Your task to perform on an android device: Open battery settings Image 0: 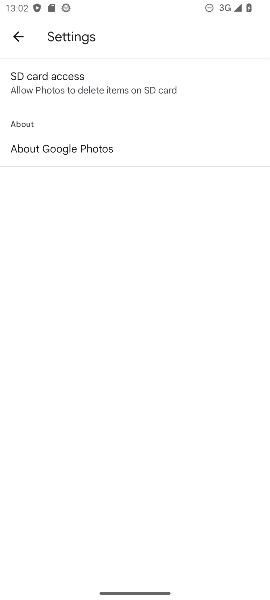
Step 0: press home button
Your task to perform on an android device: Open battery settings Image 1: 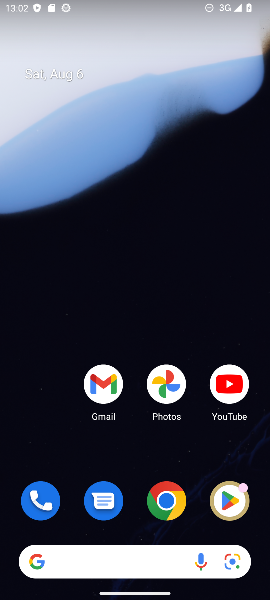
Step 1: drag from (132, 422) to (117, 96)
Your task to perform on an android device: Open battery settings Image 2: 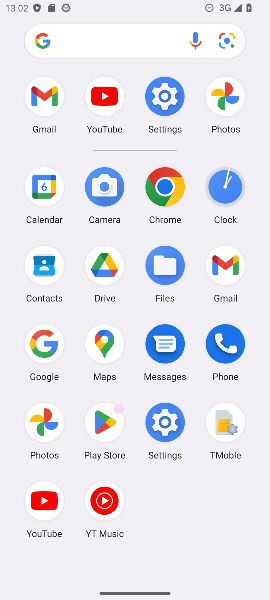
Step 2: click (156, 97)
Your task to perform on an android device: Open battery settings Image 3: 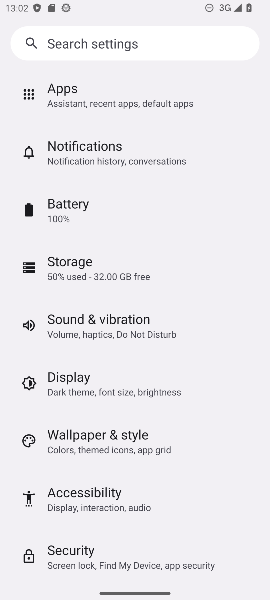
Step 3: click (88, 205)
Your task to perform on an android device: Open battery settings Image 4: 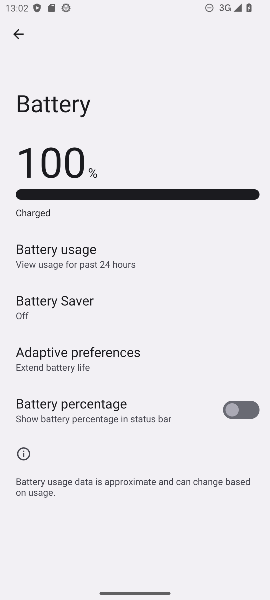
Step 4: task complete